Your task to perform on an android device: Do I have any events today? Image 0: 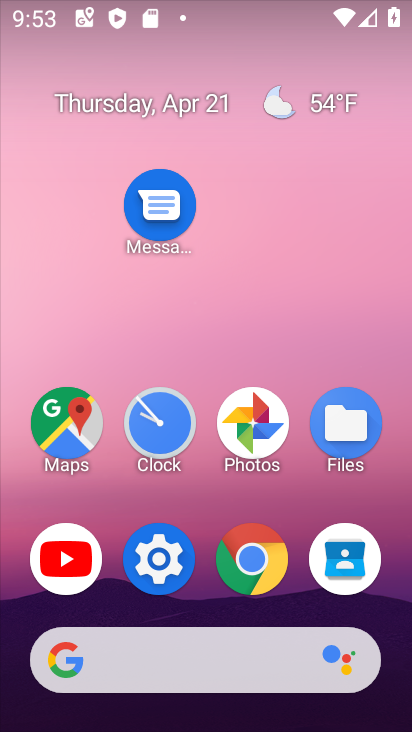
Step 0: drag from (291, 342) to (325, 53)
Your task to perform on an android device: Do I have any events today? Image 1: 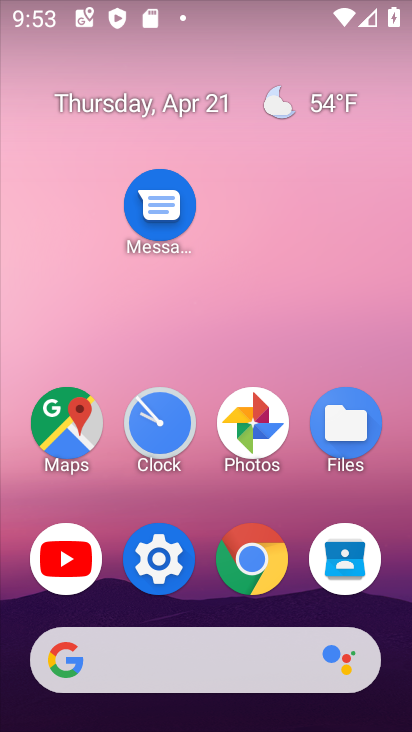
Step 1: drag from (183, 717) to (193, 30)
Your task to perform on an android device: Do I have any events today? Image 2: 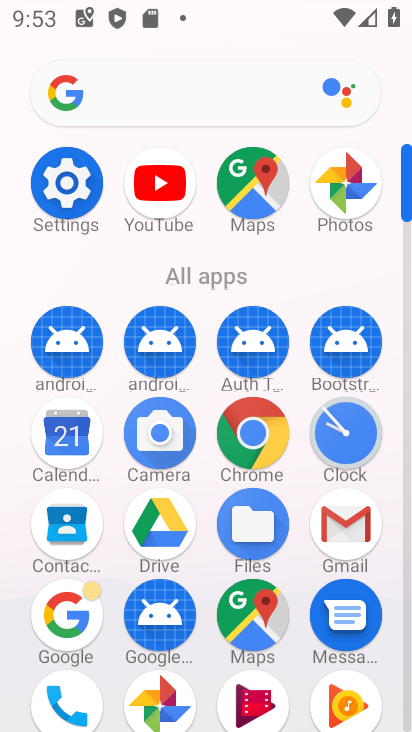
Step 2: click (75, 438)
Your task to perform on an android device: Do I have any events today? Image 3: 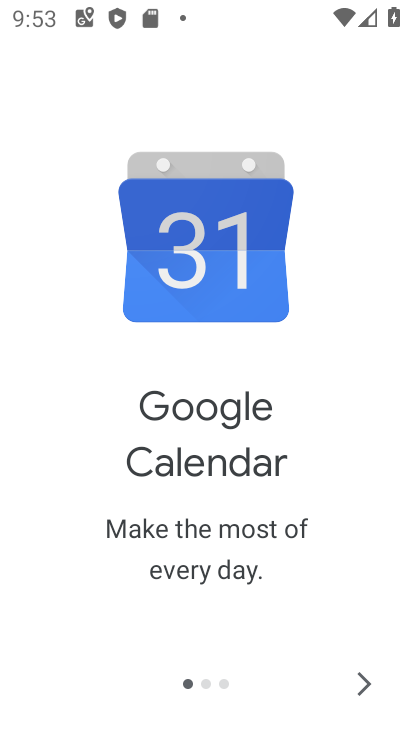
Step 3: click (361, 682)
Your task to perform on an android device: Do I have any events today? Image 4: 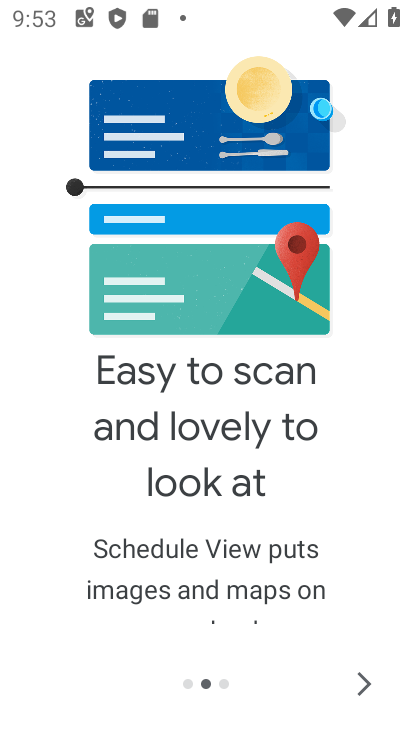
Step 4: click (361, 682)
Your task to perform on an android device: Do I have any events today? Image 5: 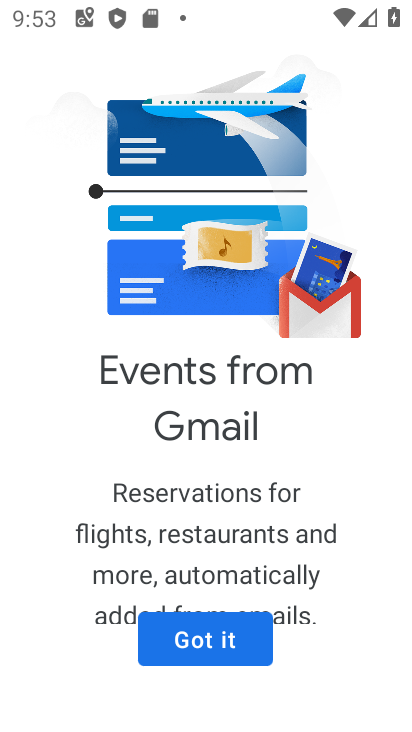
Step 5: click (174, 640)
Your task to perform on an android device: Do I have any events today? Image 6: 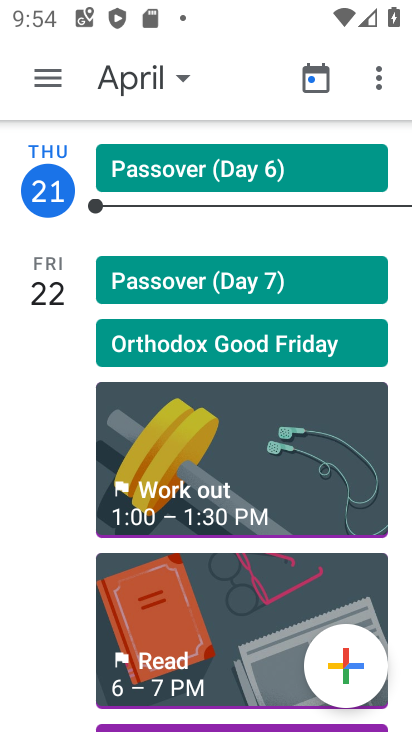
Step 6: click (43, 76)
Your task to perform on an android device: Do I have any events today? Image 7: 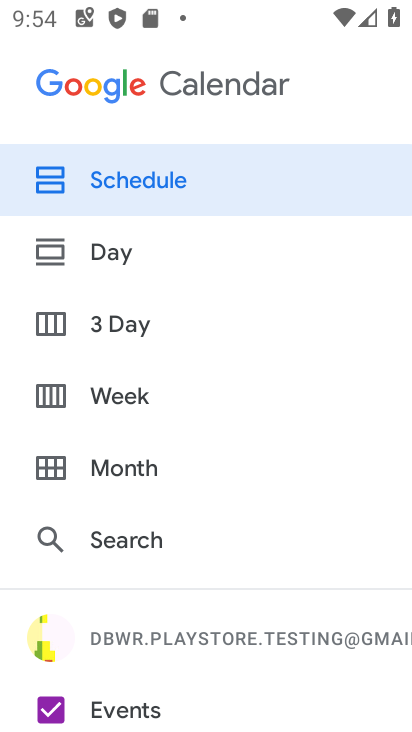
Step 7: click (116, 248)
Your task to perform on an android device: Do I have any events today? Image 8: 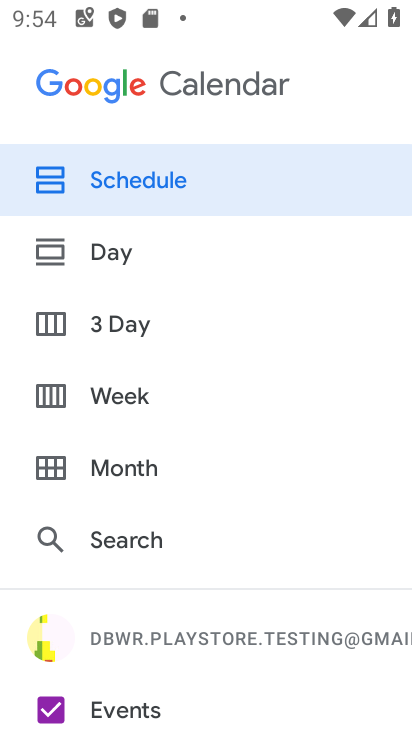
Step 8: click (115, 253)
Your task to perform on an android device: Do I have any events today? Image 9: 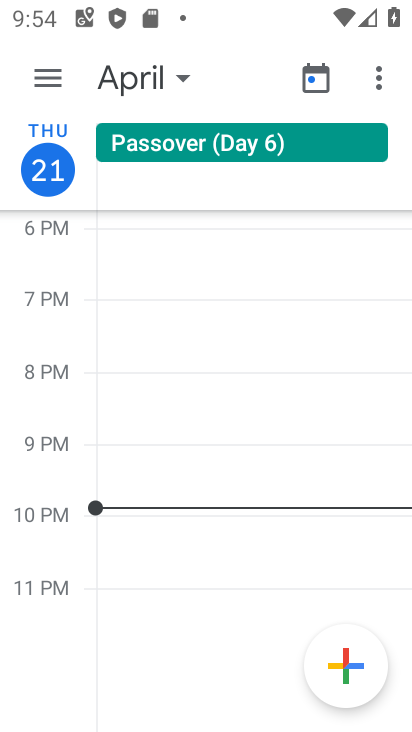
Step 9: task complete